Your task to perform on an android device: Open calendar and show me the fourth week of next month Image 0: 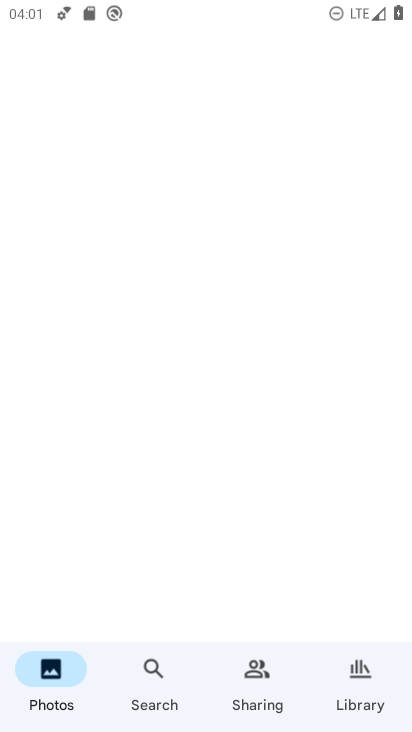
Step 0: click (130, 603)
Your task to perform on an android device: Open calendar and show me the fourth week of next month Image 1: 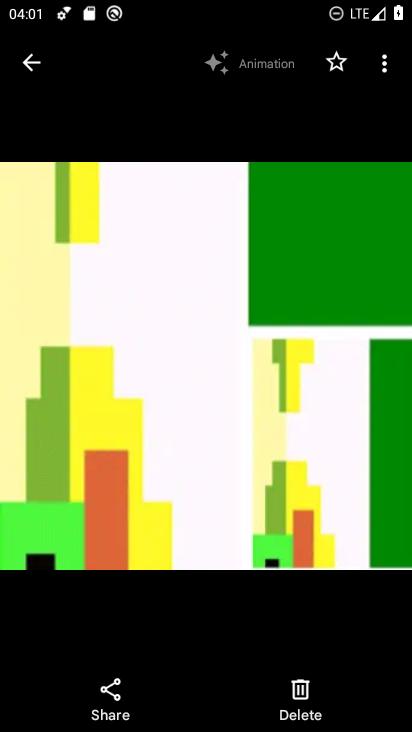
Step 1: click (30, 62)
Your task to perform on an android device: Open calendar and show me the fourth week of next month Image 2: 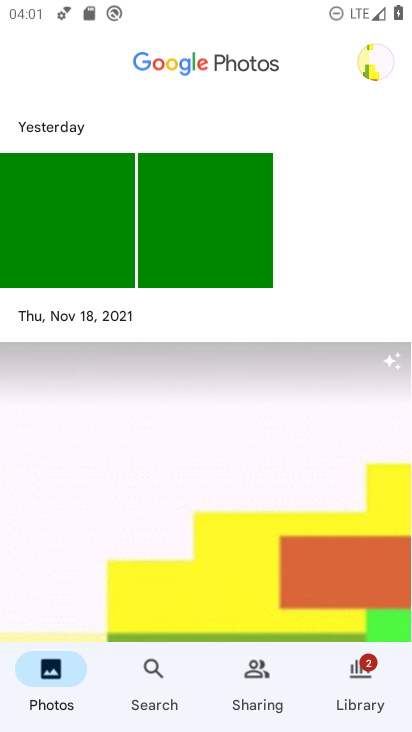
Step 2: press home button
Your task to perform on an android device: Open calendar and show me the fourth week of next month Image 3: 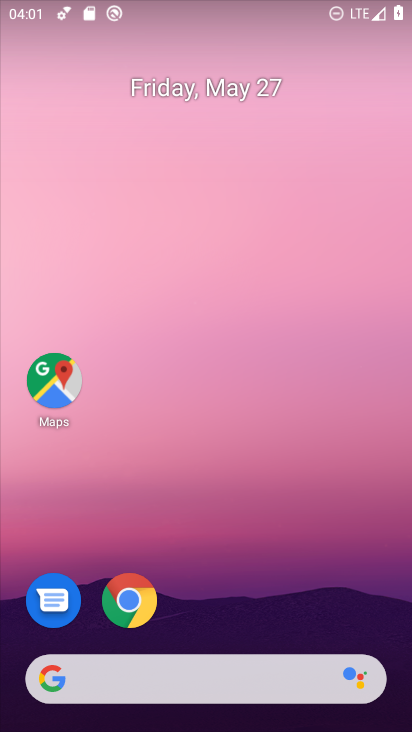
Step 3: drag from (215, 641) to (206, 203)
Your task to perform on an android device: Open calendar and show me the fourth week of next month Image 4: 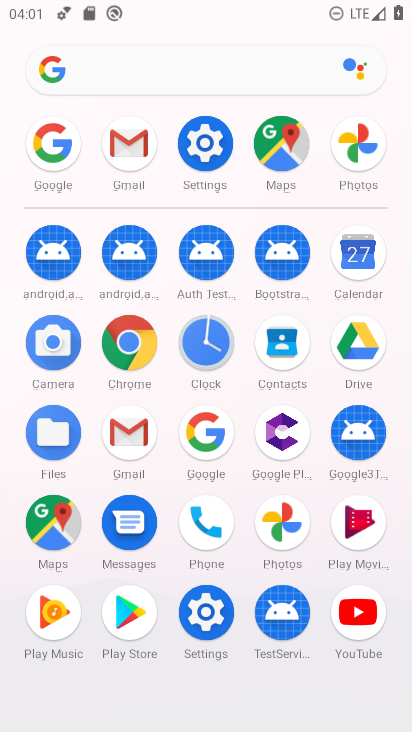
Step 4: click (363, 252)
Your task to perform on an android device: Open calendar and show me the fourth week of next month Image 5: 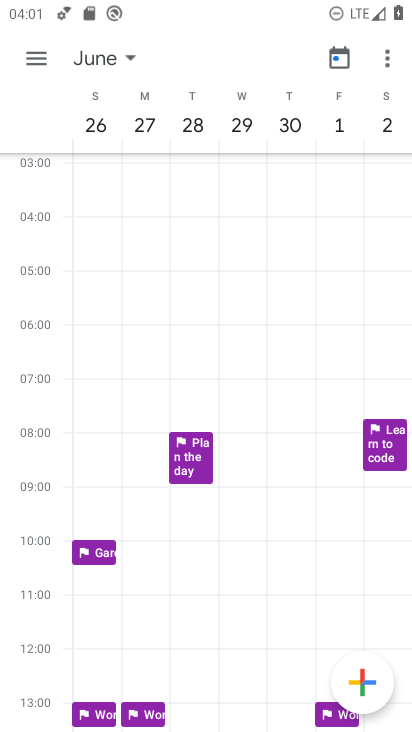
Step 5: click (126, 56)
Your task to perform on an android device: Open calendar and show me the fourth week of next month Image 6: 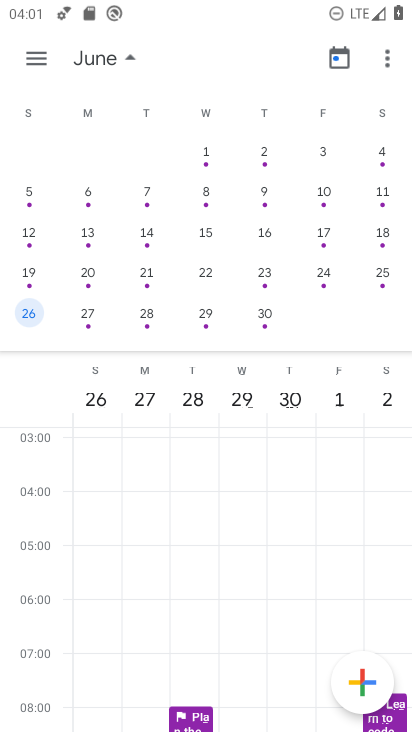
Step 6: click (86, 313)
Your task to perform on an android device: Open calendar and show me the fourth week of next month Image 7: 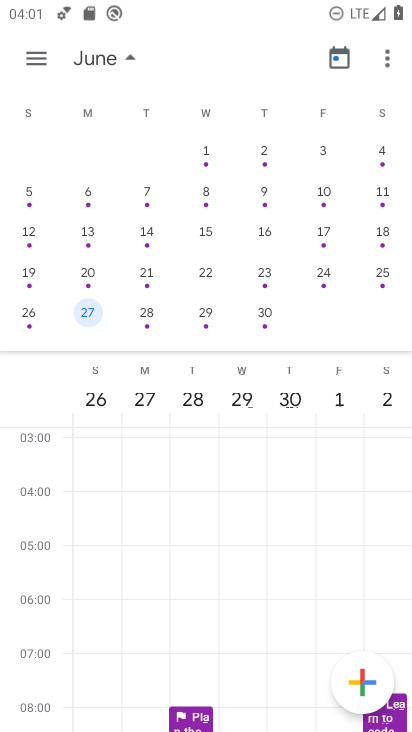
Step 7: click (33, 58)
Your task to perform on an android device: Open calendar and show me the fourth week of next month Image 8: 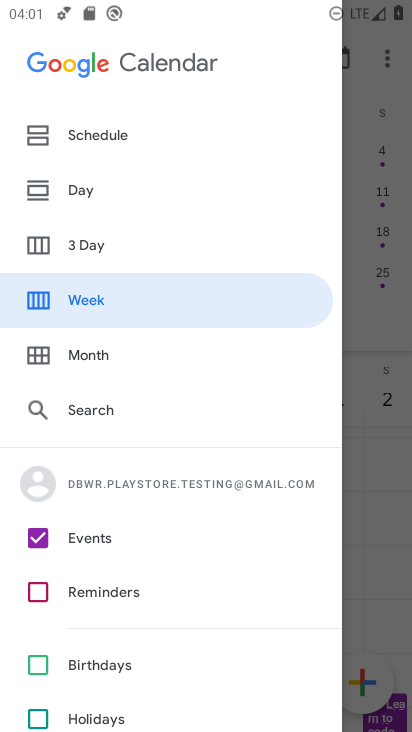
Step 8: click (96, 294)
Your task to perform on an android device: Open calendar and show me the fourth week of next month Image 9: 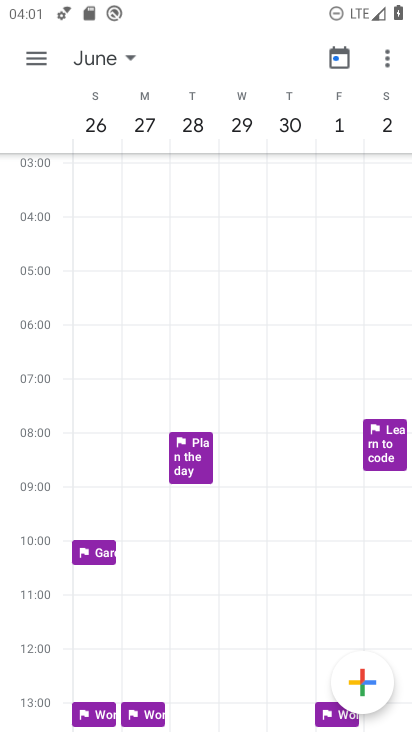
Step 9: task complete